Your task to perform on an android device: Go to wifi settings Image 0: 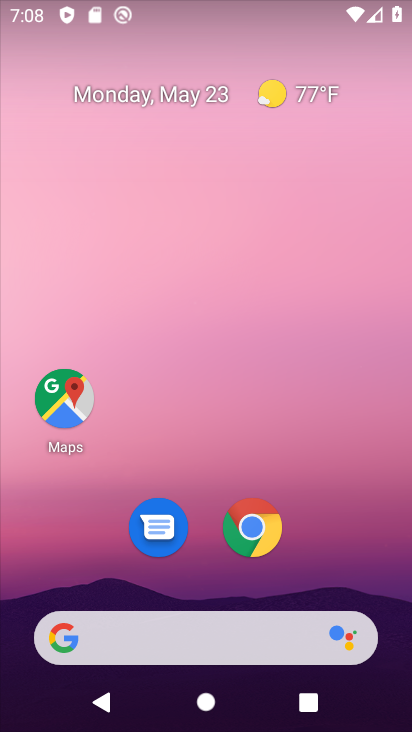
Step 0: drag from (230, 671) to (233, 191)
Your task to perform on an android device: Go to wifi settings Image 1: 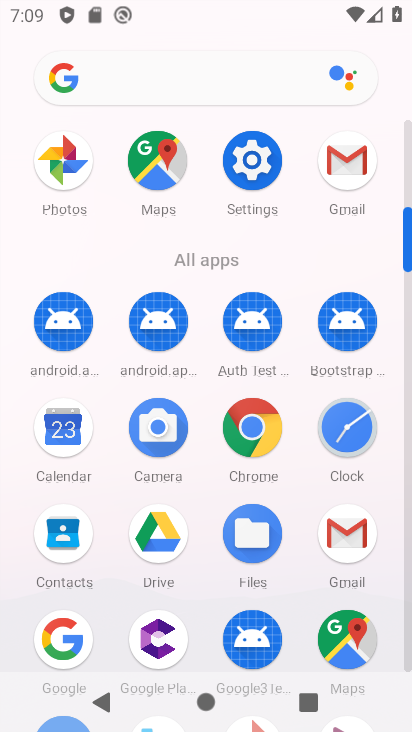
Step 1: click (258, 160)
Your task to perform on an android device: Go to wifi settings Image 2: 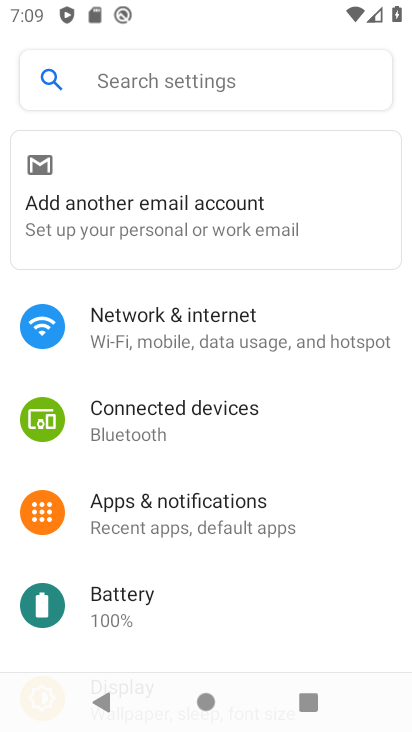
Step 2: click (218, 322)
Your task to perform on an android device: Go to wifi settings Image 3: 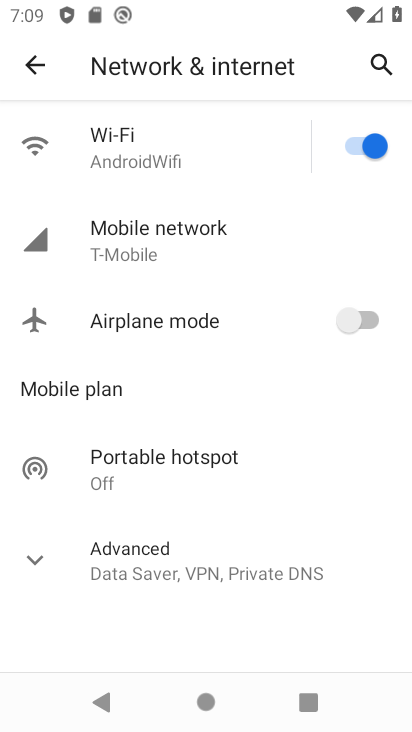
Step 3: click (175, 142)
Your task to perform on an android device: Go to wifi settings Image 4: 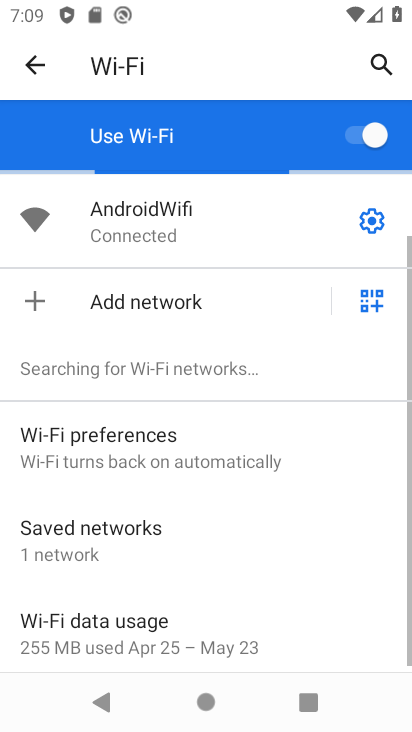
Step 4: task complete